Your task to perform on an android device: change the clock style Image 0: 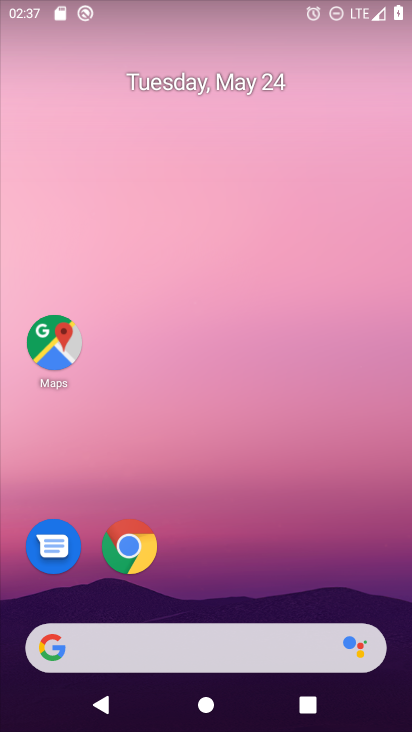
Step 0: drag from (232, 627) to (304, 2)
Your task to perform on an android device: change the clock style Image 1: 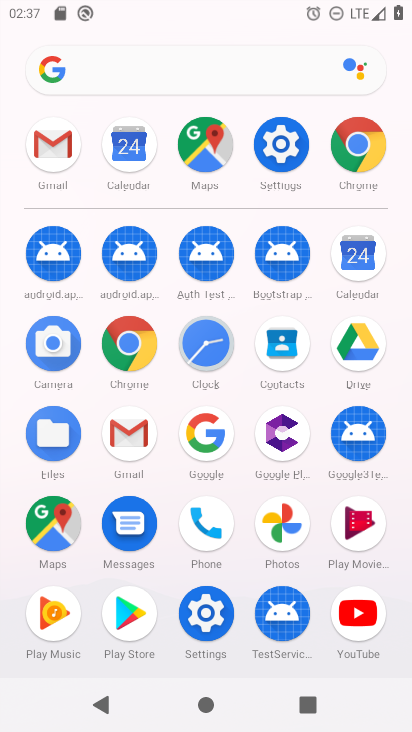
Step 1: click (215, 327)
Your task to perform on an android device: change the clock style Image 2: 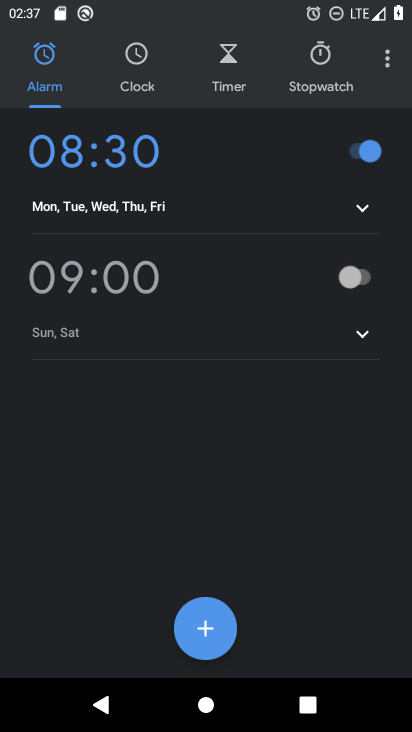
Step 2: click (389, 59)
Your task to perform on an android device: change the clock style Image 3: 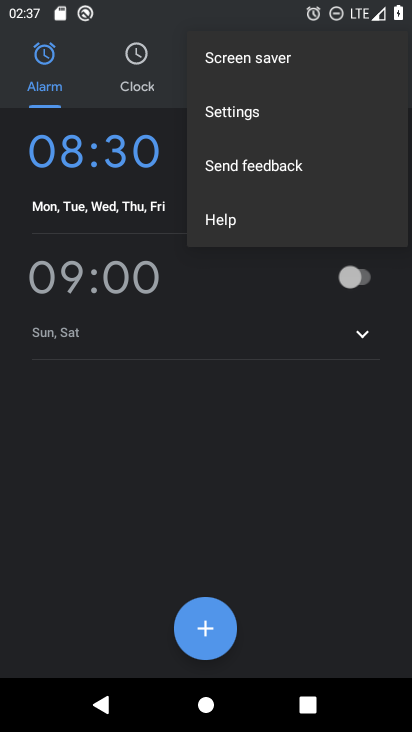
Step 3: click (287, 110)
Your task to perform on an android device: change the clock style Image 4: 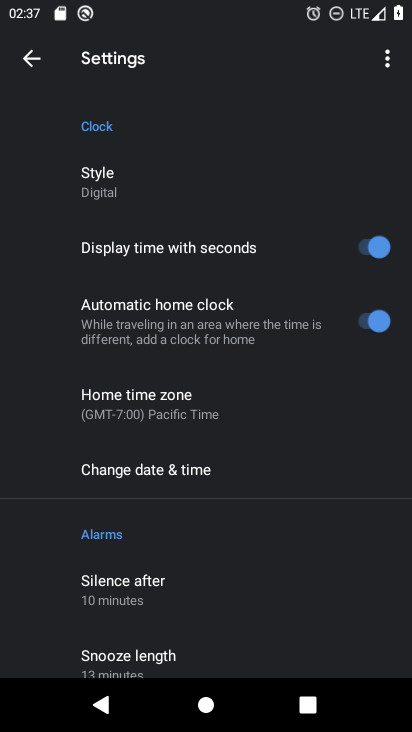
Step 4: click (128, 206)
Your task to perform on an android device: change the clock style Image 5: 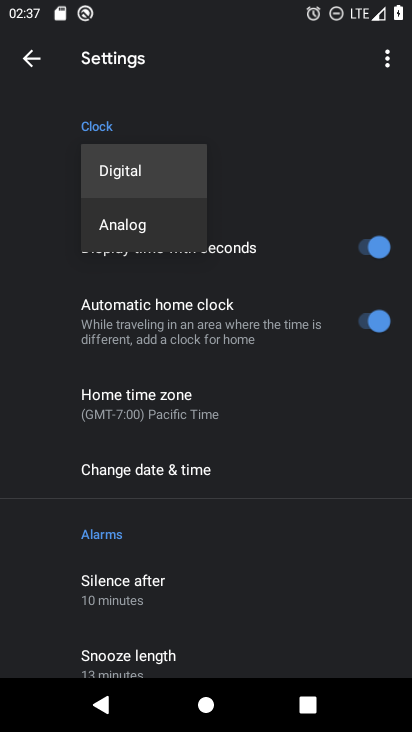
Step 5: click (132, 219)
Your task to perform on an android device: change the clock style Image 6: 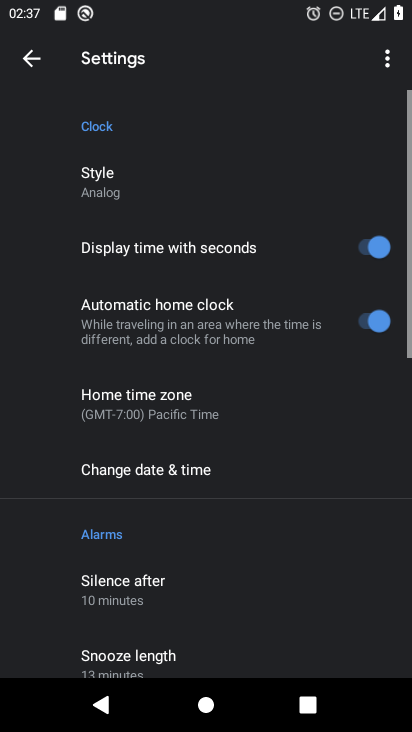
Step 6: task complete